Your task to perform on an android device: change the upload size in google photos Image 0: 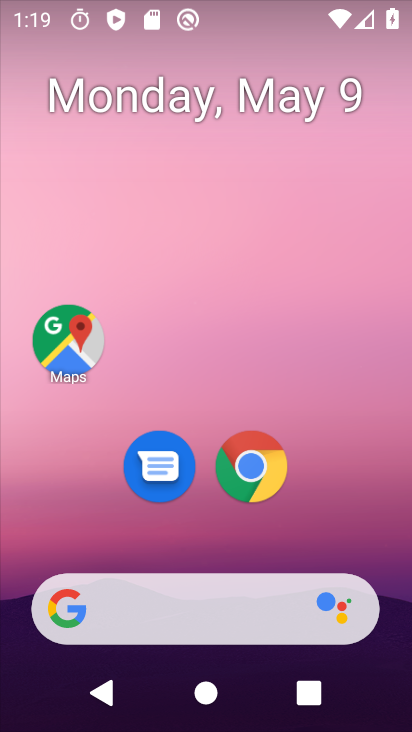
Step 0: drag from (214, 538) to (248, 294)
Your task to perform on an android device: change the upload size in google photos Image 1: 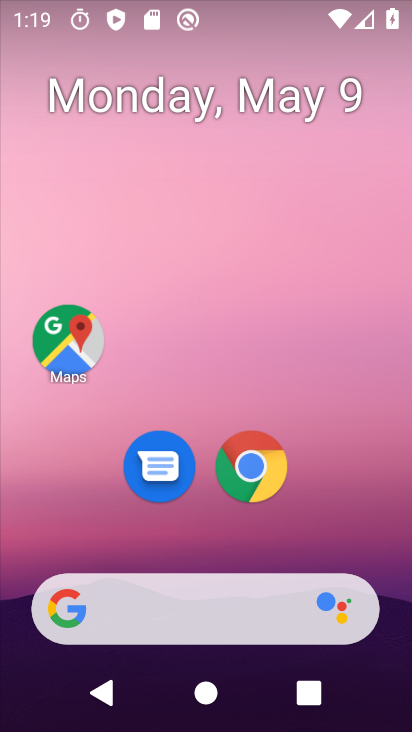
Step 1: drag from (236, 562) to (263, 191)
Your task to perform on an android device: change the upload size in google photos Image 2: 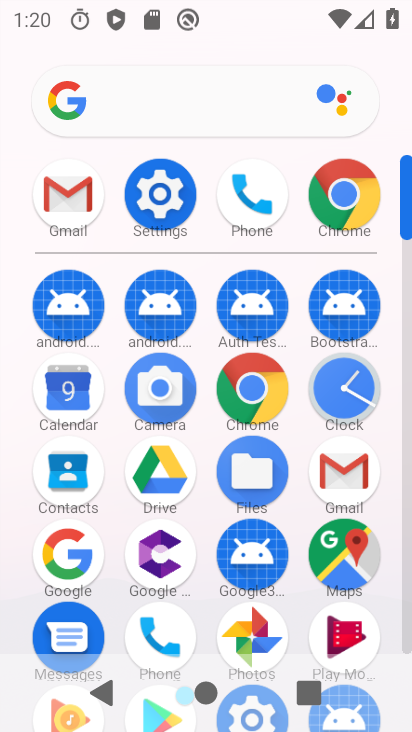
Step 2: click (258, 625)
Your task to perform on an android device: change the upload size in google photos Image 3: 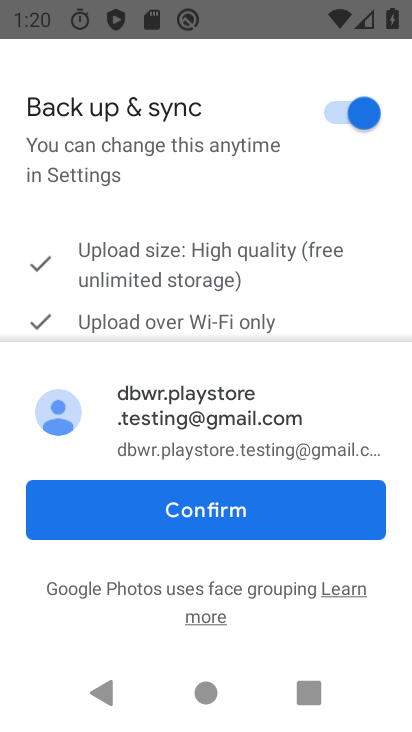
Step 3: click (218, 505)
Your task to perform on an android device: change the upload size in google photos Image 4: 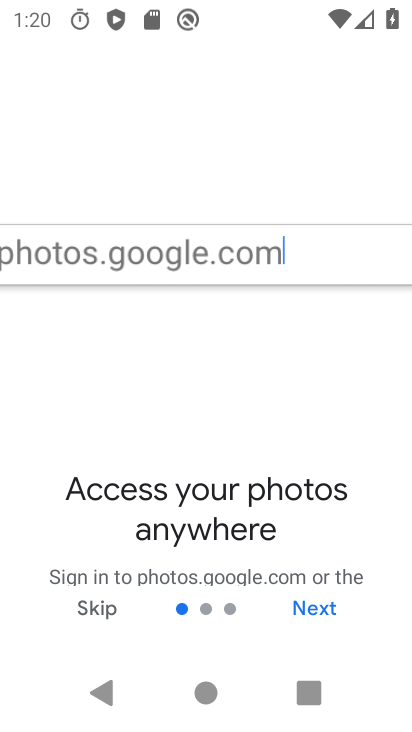
Step 4: click (300, 610)
Your task to perform on an android device: change the upload size in google photos Image 5: 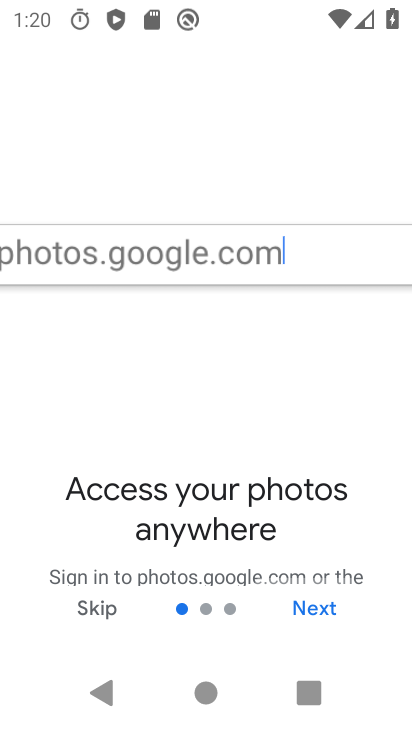
Step 5: click (300, 610)
Your task to perform on an android device: change the upload size in google photos Image 6: 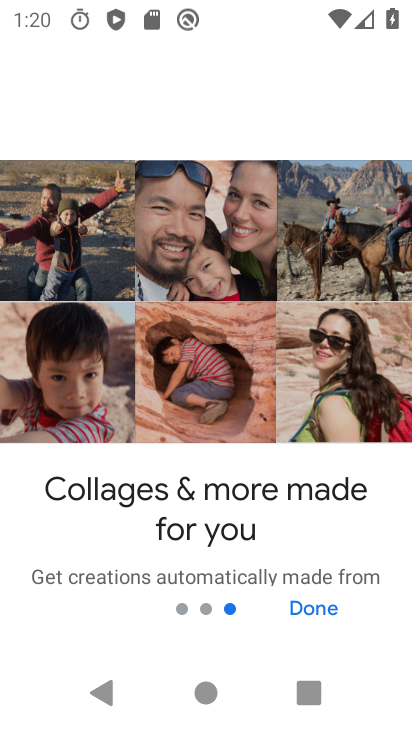
Step 6: click (300, 610)
Your task to perform on an android device: change the upload size in google photos Image 7: 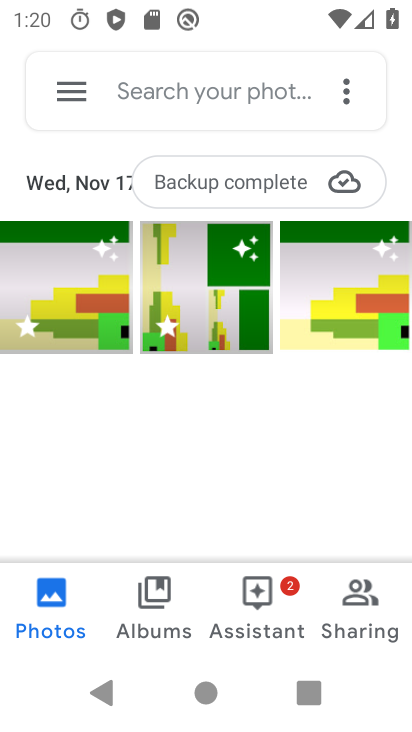
Step 7: click (81, 92)
Your task to perform on an android device: change the upload size in google photos Image 8: 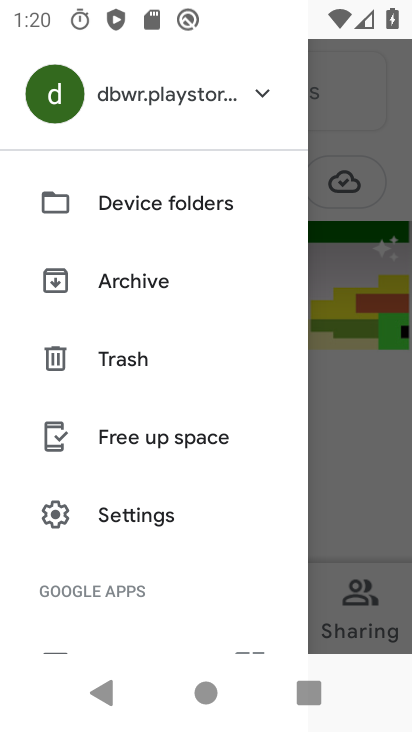
Step 8: click (90, 516)
Your task to perform on an android device: change the upload size in google photos Image 9: 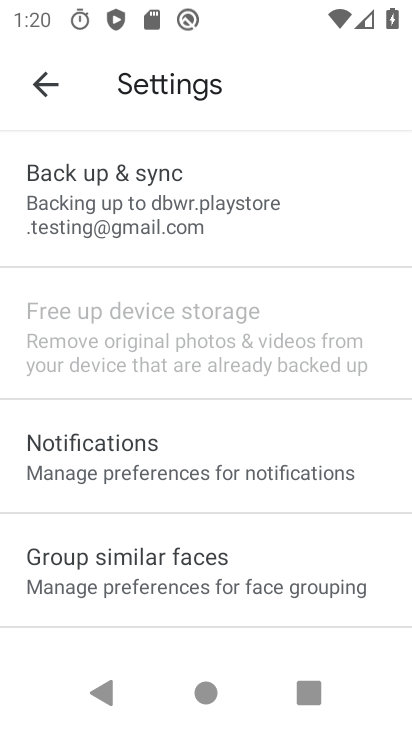
Step 9: click (164, 213)
Your task to perform on an android device: change the upload size in google photos Image 10: 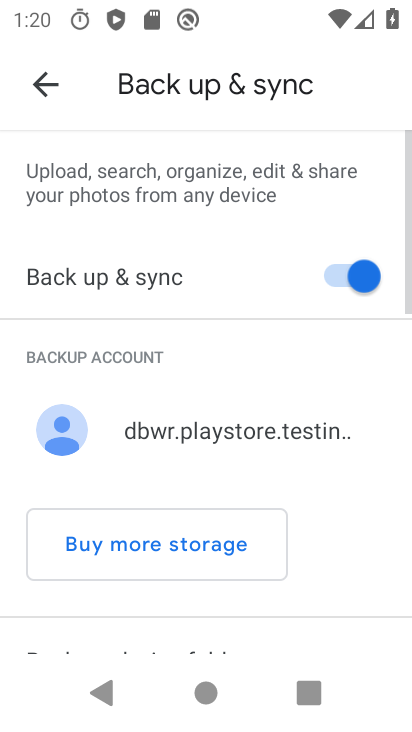
Step 10: drag from (140, 474) to (200, 323)
Your task to perform on an android device: change the upload size in google photos Image 11: 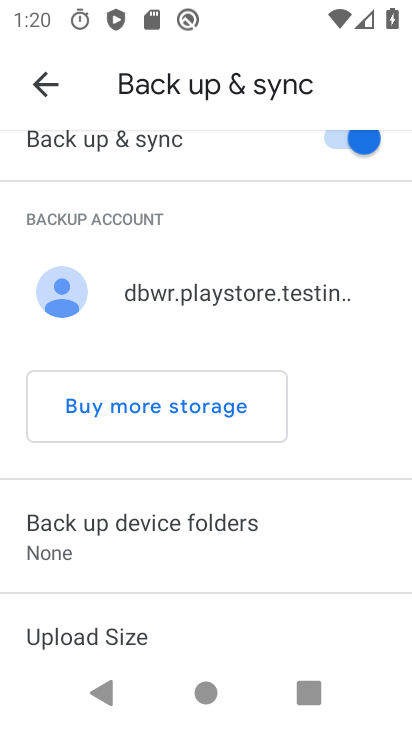
Step 11: drag from (145, 534) to (171, 416)
Your task to perform on an android device: change the upload size in google photos Image 12: 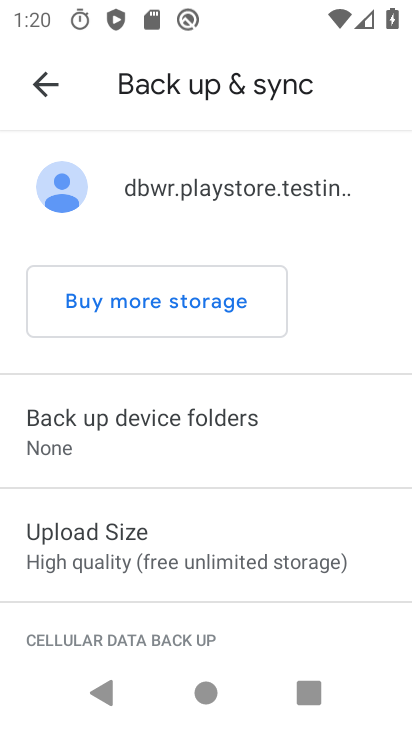
Step 12: click (166, 519)
Your task to perform on an android device: change the upload size in google photos Image 13: 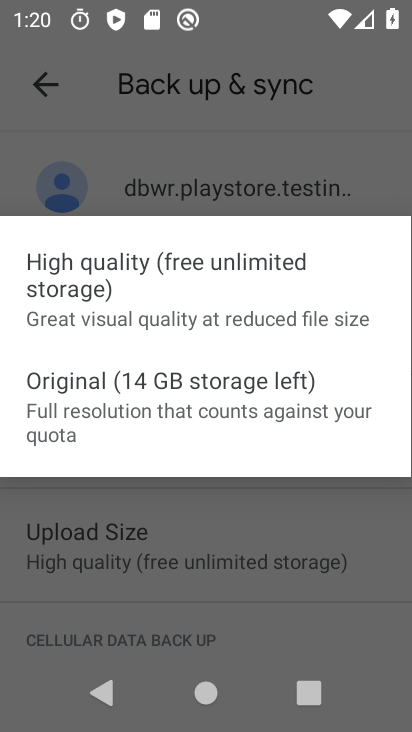
Step 13: click (193, 414)
Your task to perform on an android device: change the upload size in google photos Image 14: 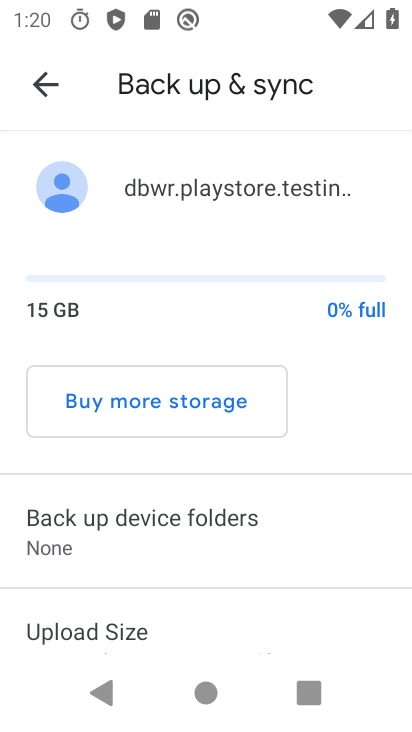
Step 14: task complete